Your task to perform on an android device: check battery use Image 0: 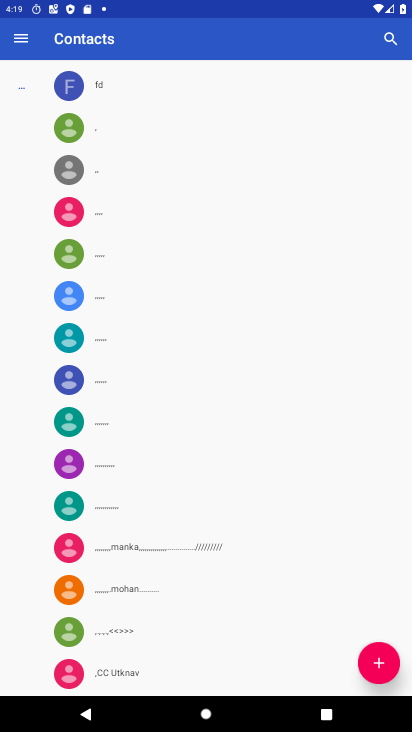
Step 0: press back button
Your task to perform on an android device: check battery use Image 1: 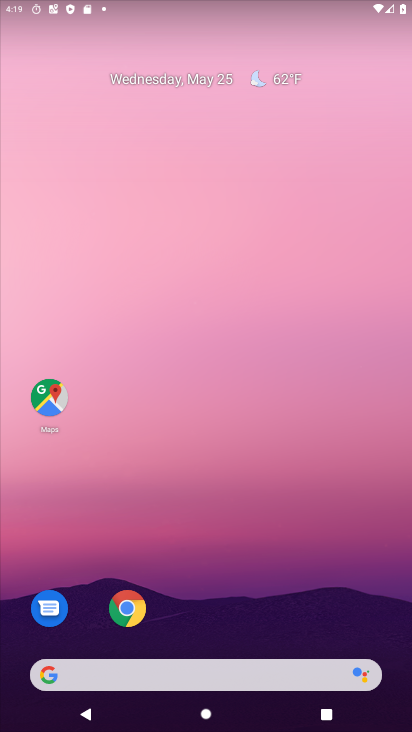
Step 1: drag from (243, 593) to (255, 133)
Your task to perform on an android device: check battery use Image 2: 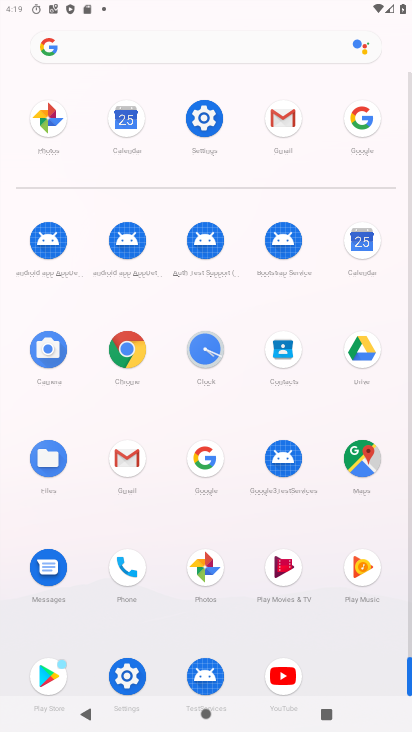
Step 2: click (205, 119)
Your task to perform on an android device: check battery use Image 3: 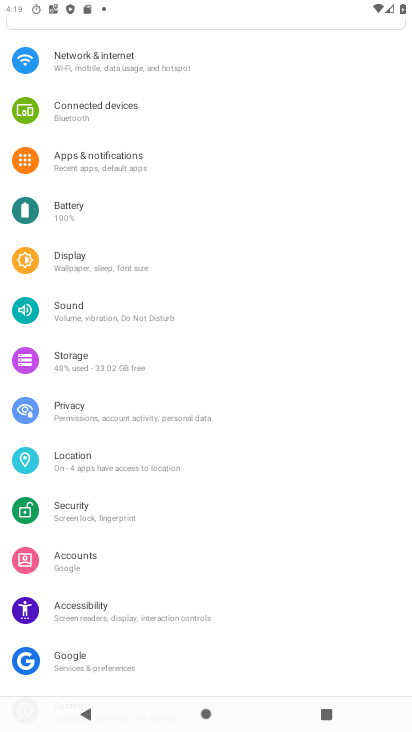
Step 3: click (86, 215)
Your task to perform on an android device: check battery use Image 4: 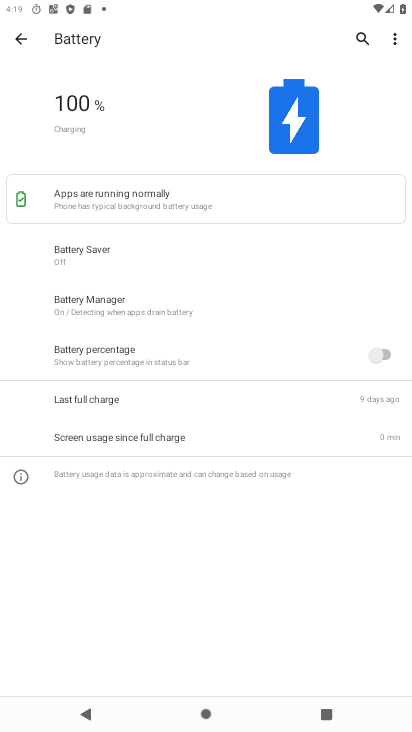
Step 4: click (395, 40)
Your task to perform on an android device: check battery use Image 5: 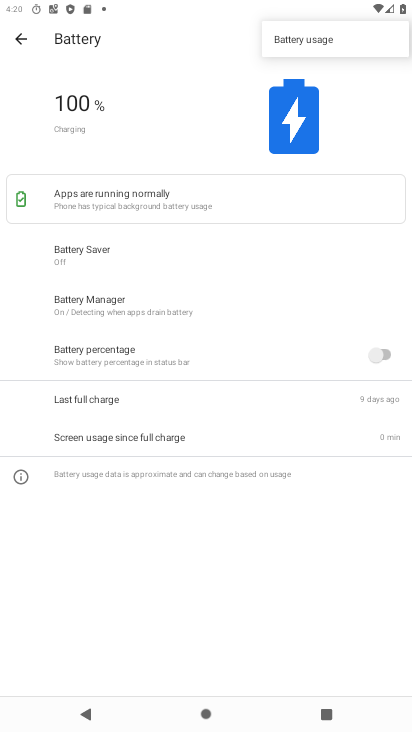
Step 5: click (291, 36)
Your task to perform on an android device: check battery use Image 6: 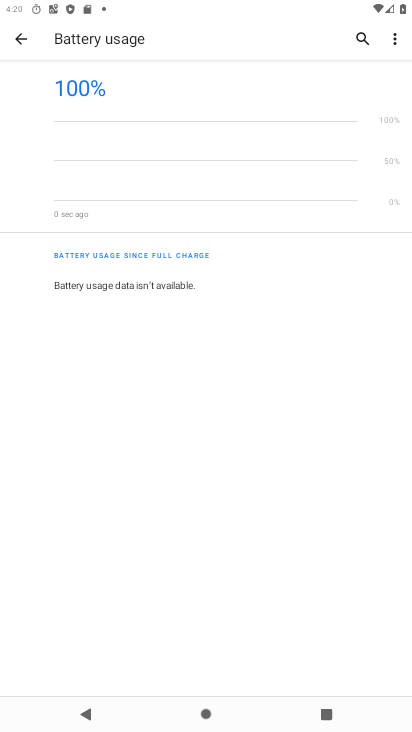
Step 6: task complete